Your task to perform on an android device: turn on the 12-hour format for clock Image 0: 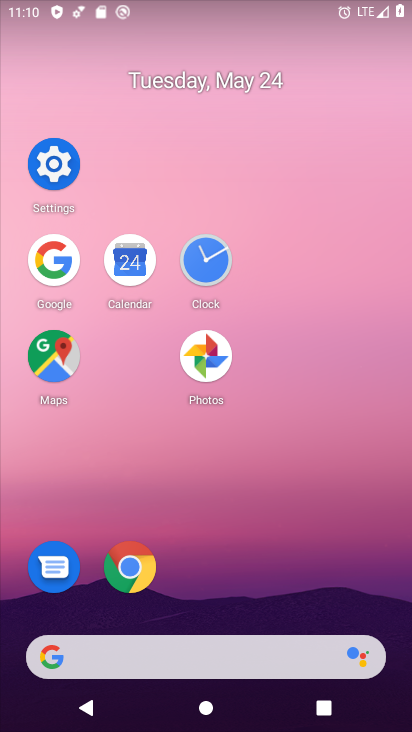
Step 0: click (208, 266)
Your task to perform on an android device: turn on the 12-hour format for clock Image 1: 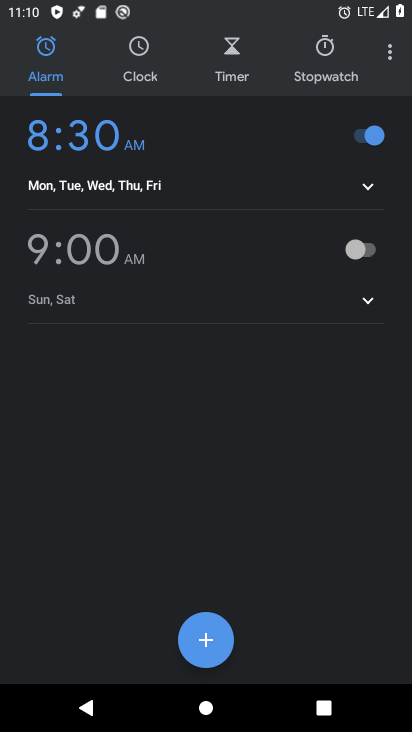
Step 1: click (388, 63)
Your task to perform on an android device: turn on the 12-hour format for clock Image 2: 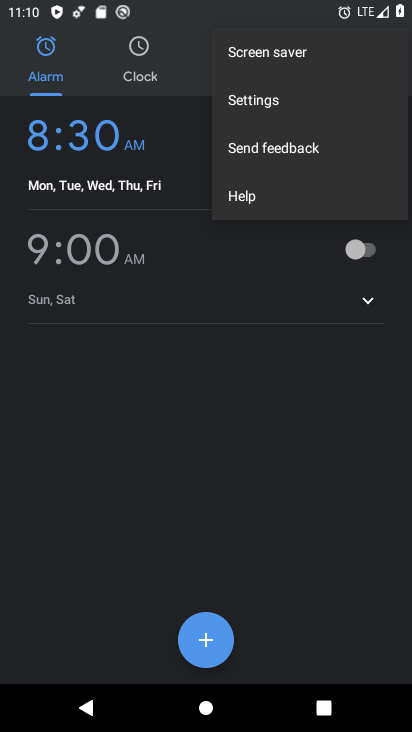
Step 2: click (312, 102)
Your task to perform on an android device: turn on the 12-hour format for clock Image 3: 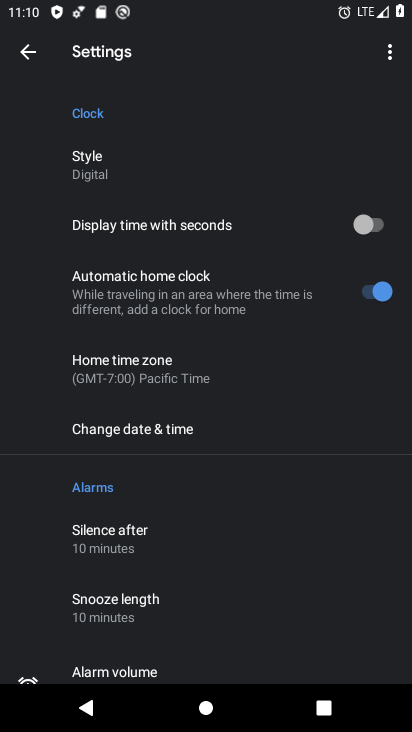
Step 3: click (200, 439)
Your task to perform on an android device: turn on the 12-hour format for clock Image 4: 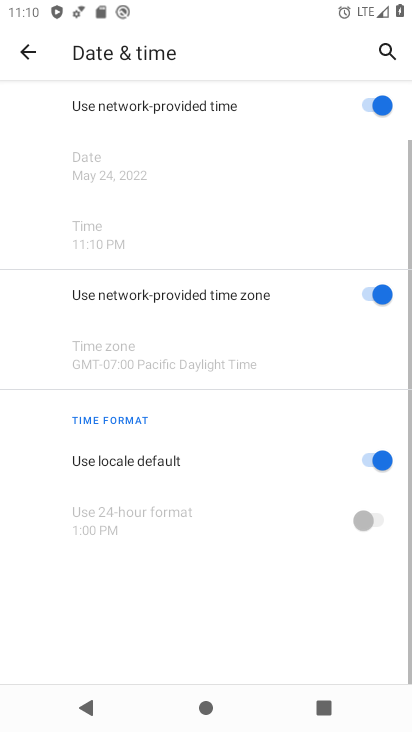
Step 4: task complete